Your task to perform on an android device: check storage Image 0: 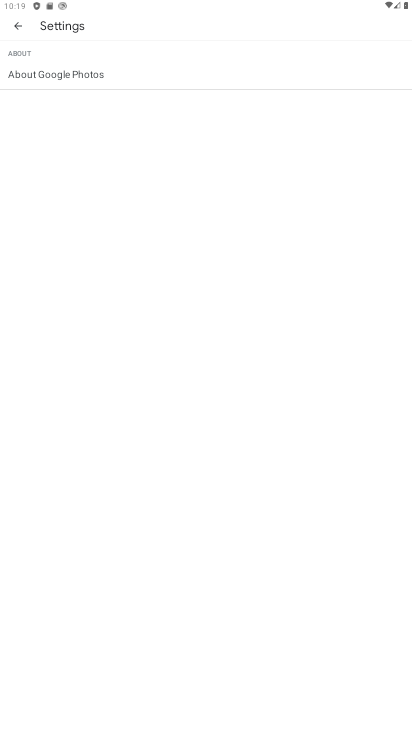
Step 0: click (24, 20)
Your task to perform on an android device: check storage Image 1: 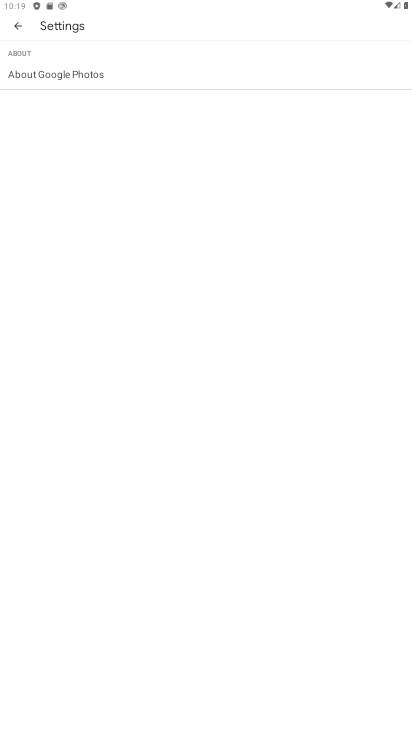
Step 1: click (23, 21)
Your task to perform on an android device: check storage Image 2: 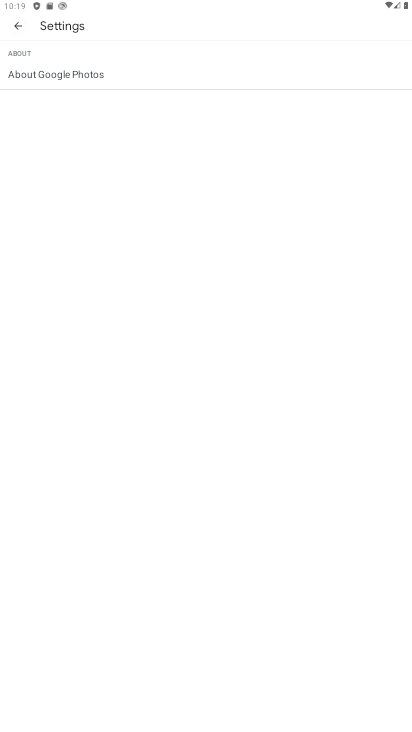
Step 2: click (21, 24)
Your task to perform on an android device: check storage Image 3: 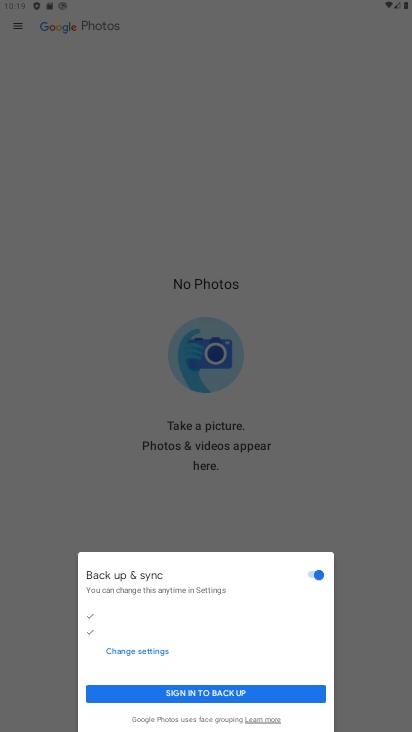
Step 3: press back button
Your task to perform on an android device: check storage Image 4: 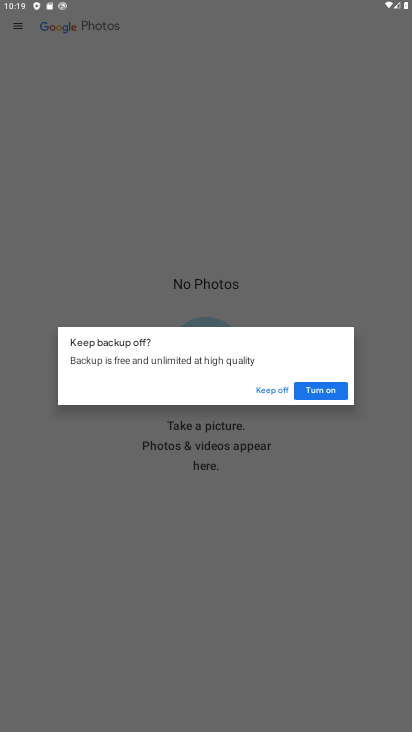
Step 4: press back button
Your task to perform on an android device: check storage Image 5: 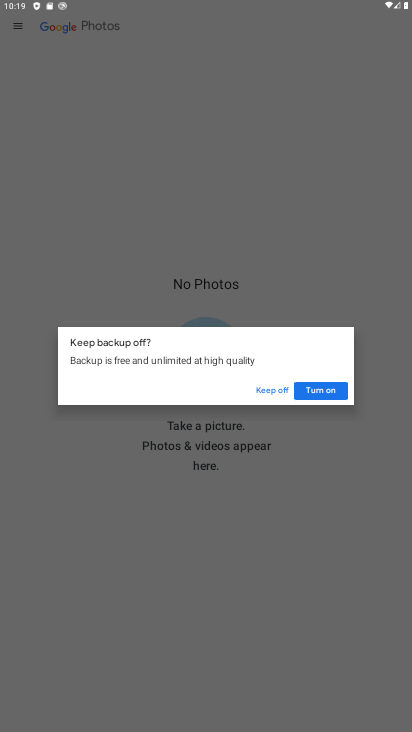
Step 5: click (257, 386)
Your task to perform on an android device: check storage Image 6: 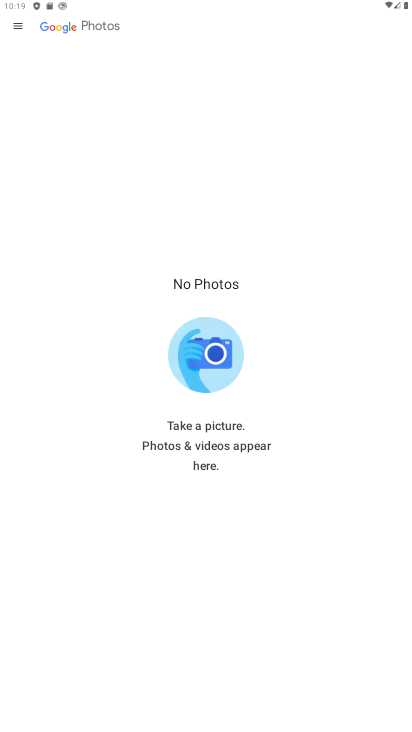
Step 6: press back button
Your task to perform on an android device: check storage Image 7: 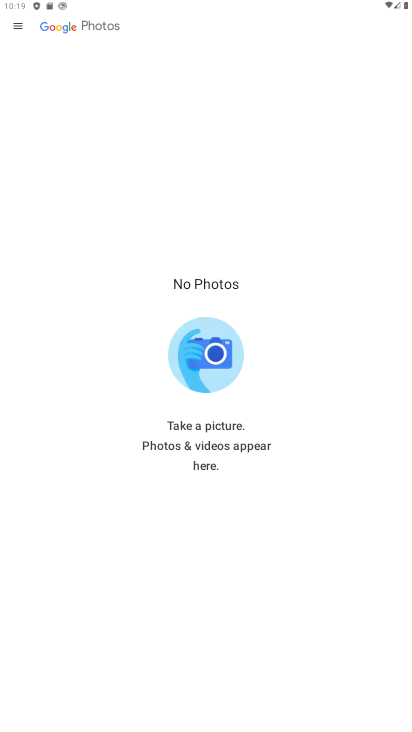
Step 7: press back button
Your task to perform on an android device: check storage Image 8: 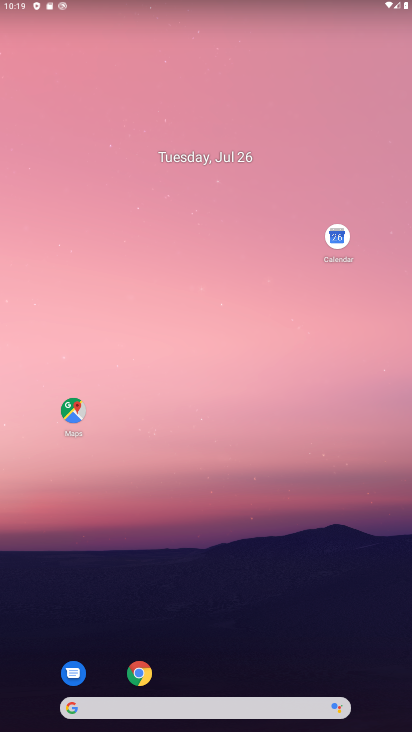
Step 8: drag from (240, 621) to (200, 0)
Your task to perform on an android device: check storage Image 9: 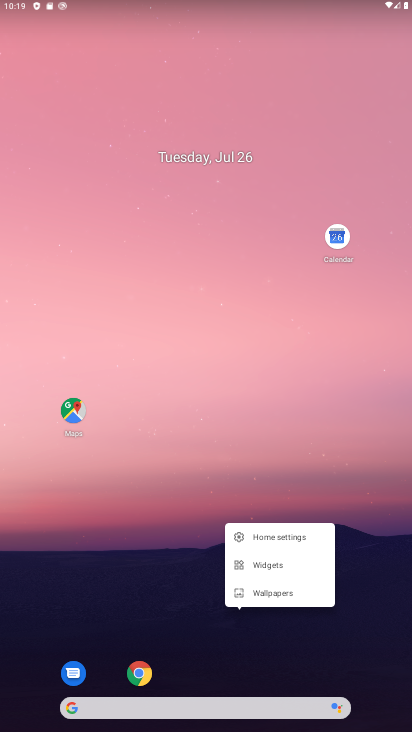
Step 9: drag from (198, 157) to (180, 26)
Your task to perform on an android device: check storage Image 10: 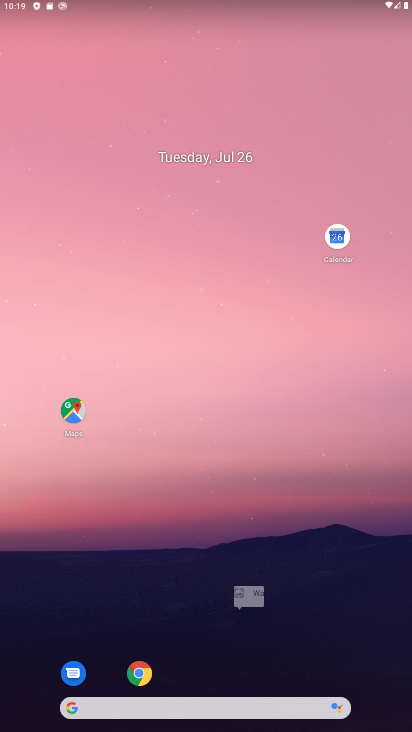
Step 10: drag from (204, 520) to (114, 39)
Your task to perform on an android device: check storage Image 11: 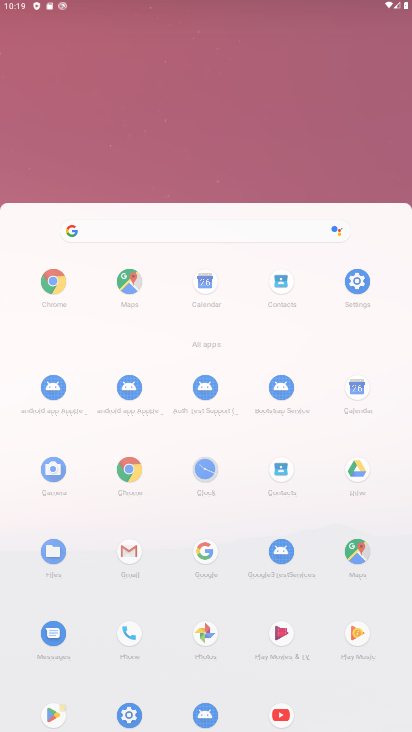
Step 11: drag from (216, 466) to (176, 57)
Your task to perform on an android device: check storage Image 12: 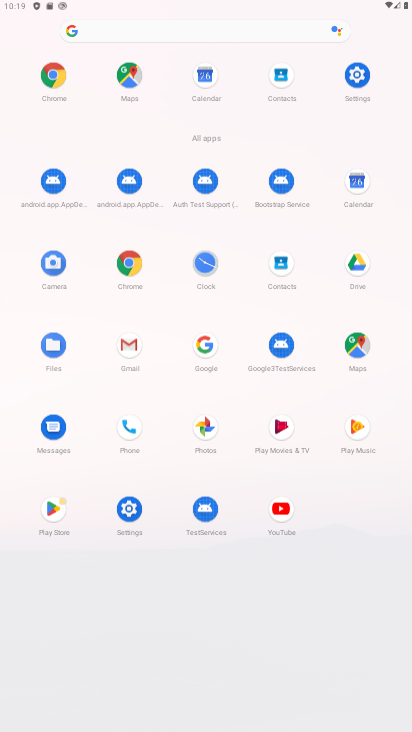
Step 12: drag from (165, 358) to (156, 136)
Your task to perform on an android device: check storage Image 13: 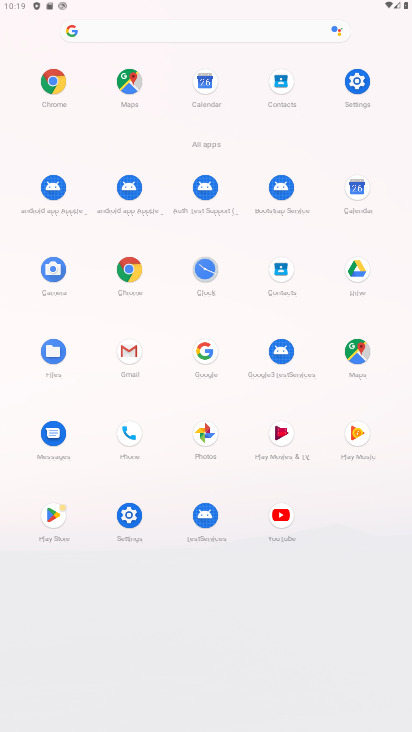
Step 13: click (129, 527)
Your task to perform on an android device: check storage Image 14: 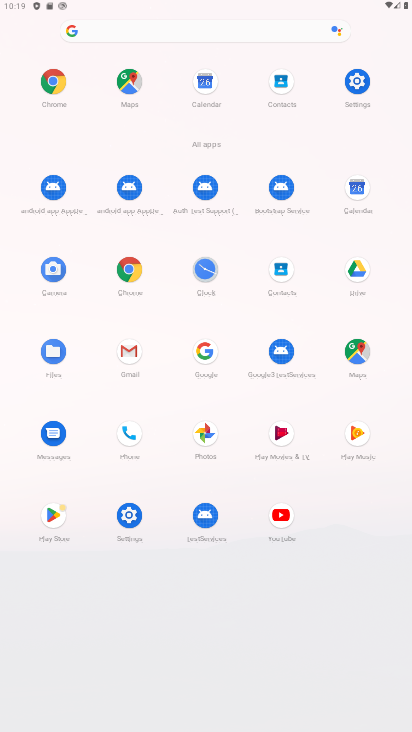
Step 14: click (134, 520)
Your task to perform on an android device: check storage Image 15: 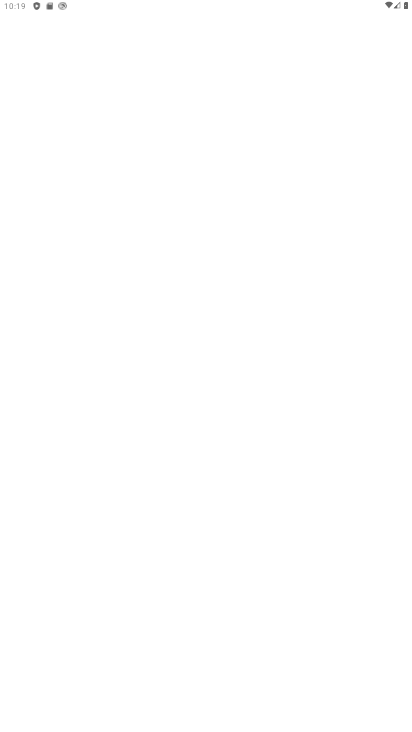
Step 15: click (137, 516)
Your task to perform on an android device: check storage Image 16: 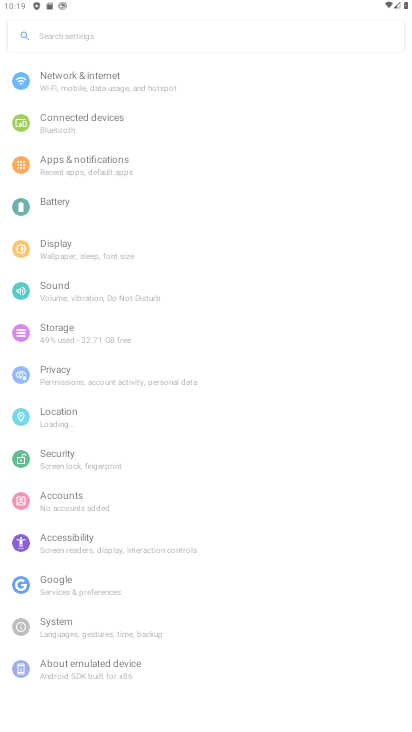
Step 16: click (112, 513)
Your task to perform on an android device: check storage Image 17: 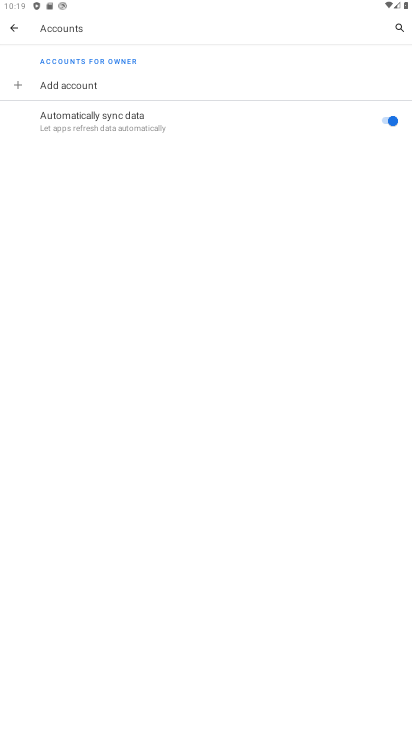
Step 17: click (18, 23)
Your task to perform on an android device: check storage Image 18: 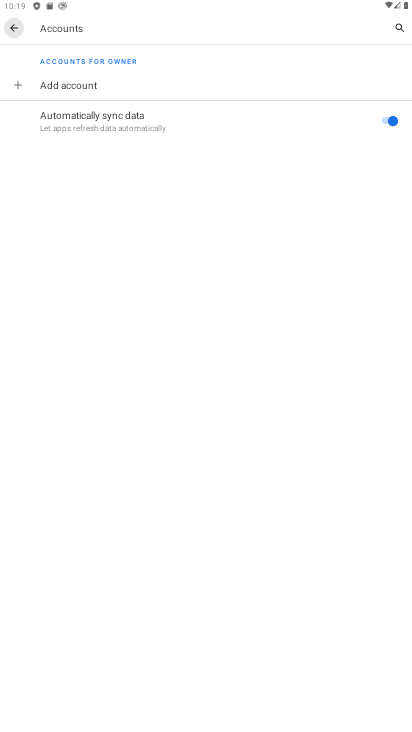
Step 18: click (18, 23)
Your task to perform on an android device: check storage Image 19: 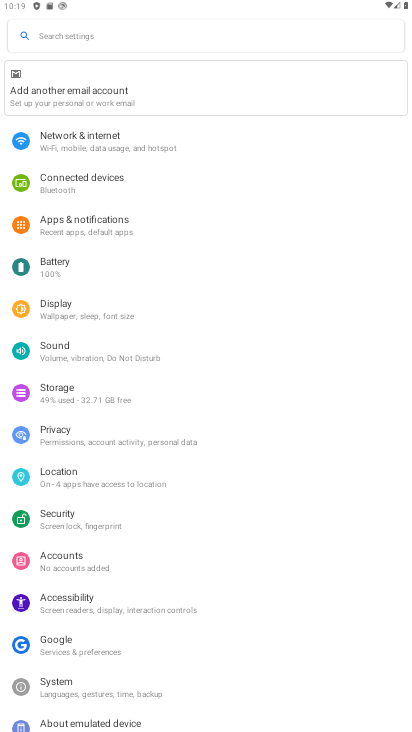
Step 19: click (58, 387)
Your task to perform on an android device: check storage Image 20: 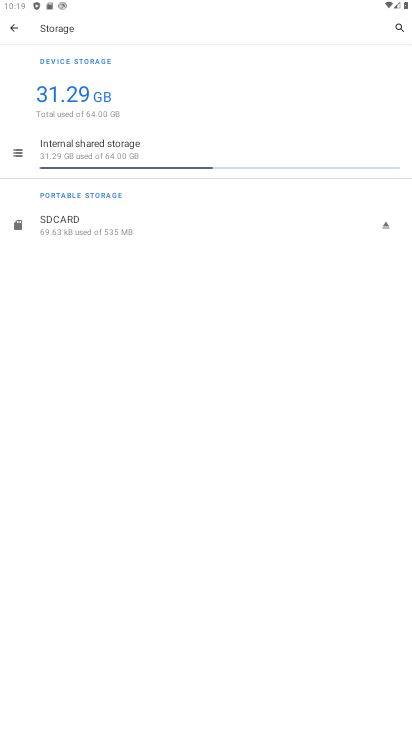
Step 20: task complete